Your task to perform on an android device: check android version Image 0: 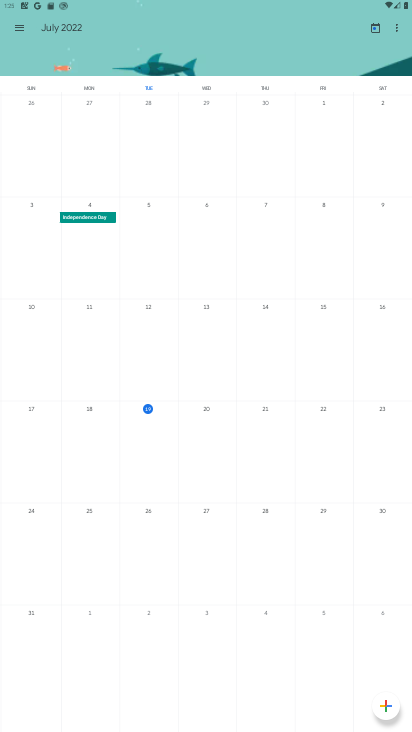
Step 0: press home button
Your task to perform on an android device: check android version Image 1: 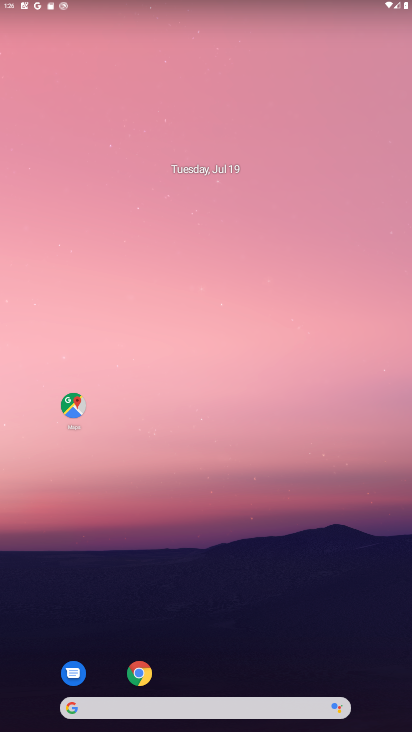
Step 1: drag from (245, 565) to (301, 8)
Your task to perform on an android device: check android version Image 2: 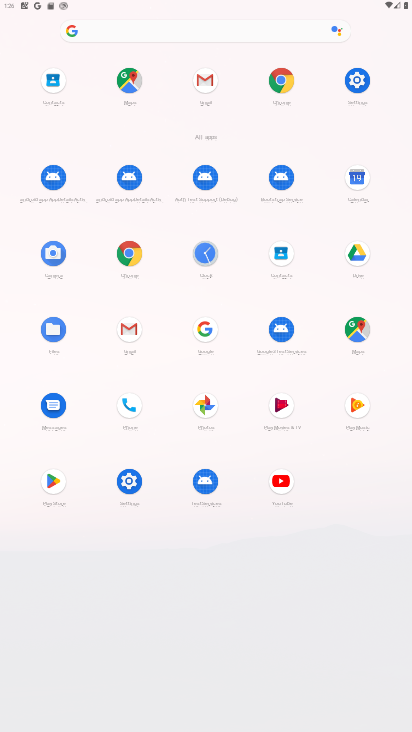
Step 2: click (354, 79)
Your task to perform on an android device: check android version Image 3: 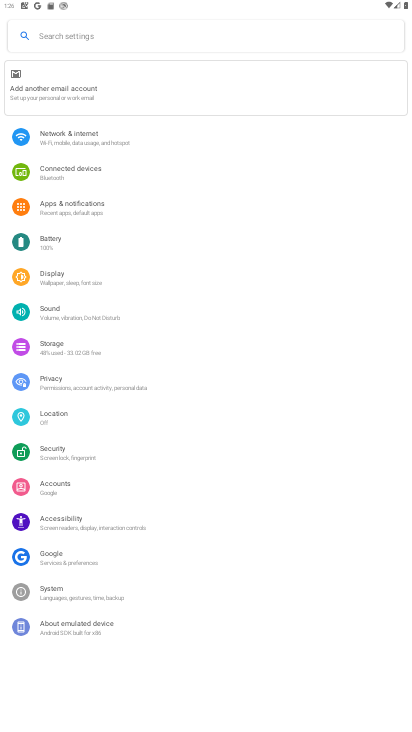
Step 3: click (93, 625)
Your task to perform on an android device: check android version Image 4: 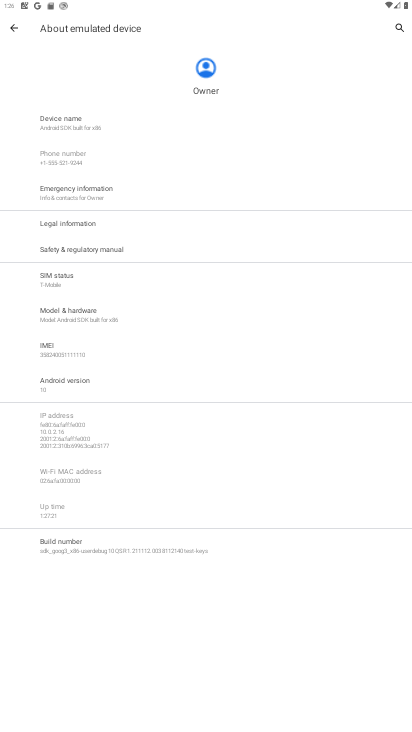
Step 4: task complete